Your task to perform on an android device: Go to eBay Image 0: 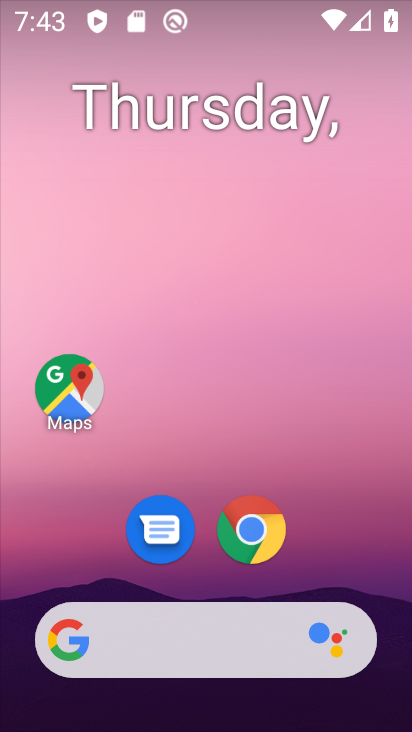
Step 0: click (264, 536)
Your task to perform on an android device: Go to eBay Image 1: 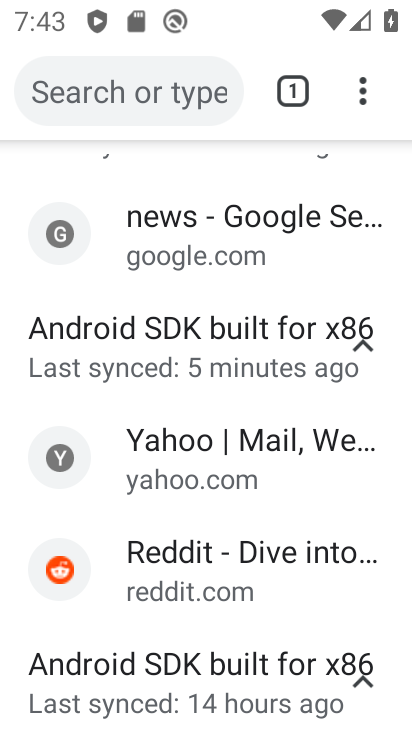
Step 1: drag from (179, 530) to (248, 95)
Your task to perform on an android device: Go to eBay Image 2: 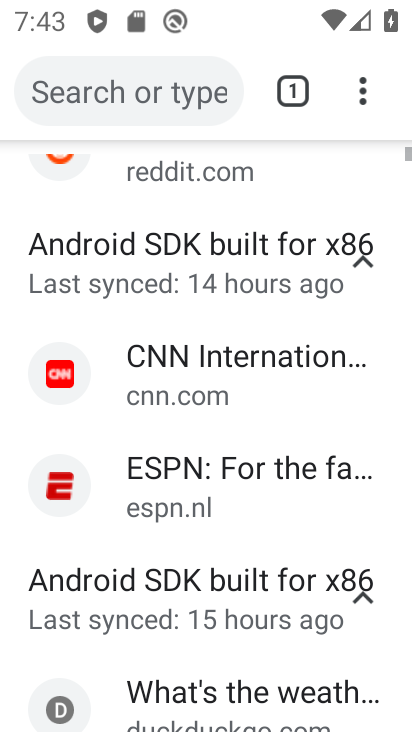
Step 2: drag from (179, 525) to (249, 113)
Your task to perform on an android device: Go to eBay Image 3: 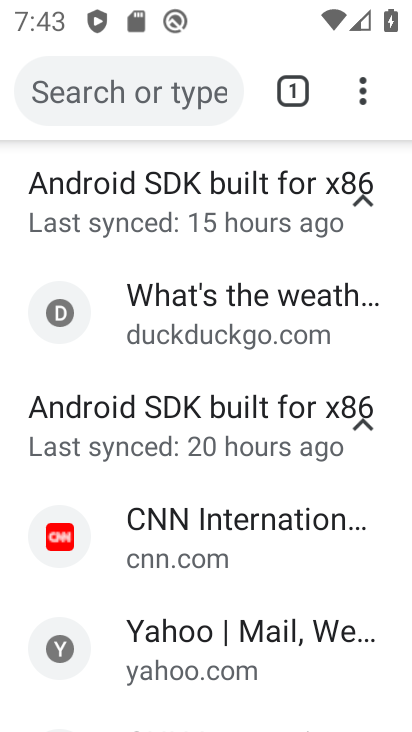
Step 3: drag from (188, 455) to (227, 92)
Your task to perform on an android device: Go to eBay Image 4: 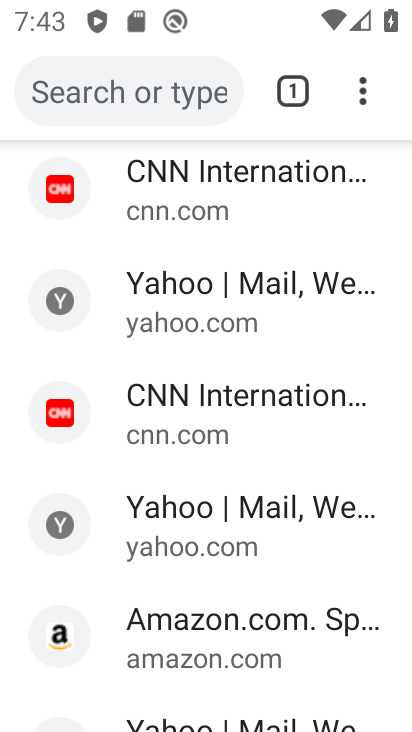
Step 4: drag from (154, 690) to (225, 234)
Your task to perform on an android device: Go to eBay Image 5: 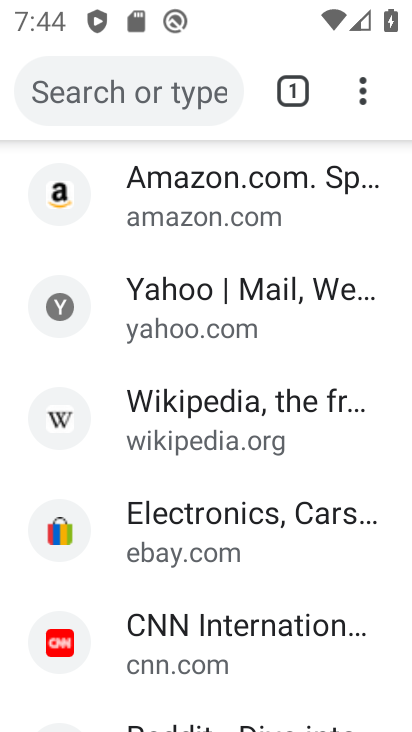
Step 5: drag from (148, 710) to (251, 395)
Your task to perform on an android device: Go to eBay Image 6: 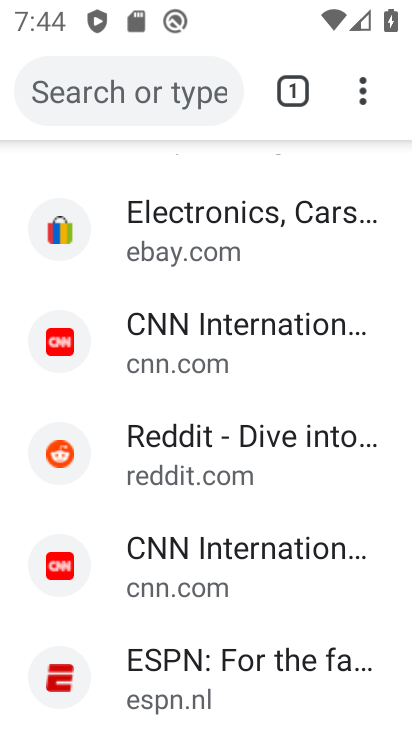
Step 6: click (211, 249)
Your task to perform on an android device: Go to eBay Image 7: 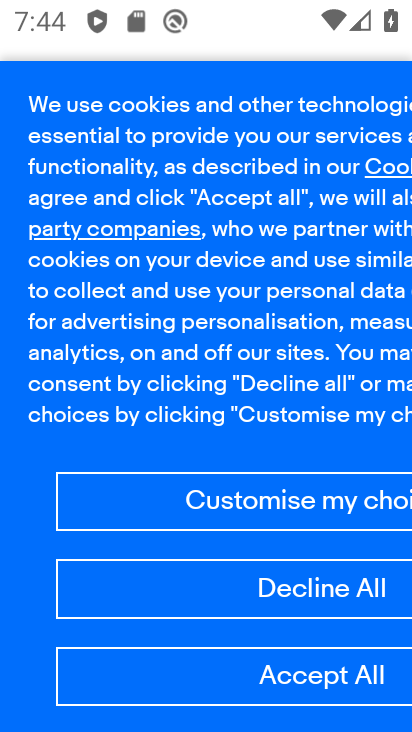
Step 7: task complete